Your task to perform on an android device: star an email in the gmail app Image 0: 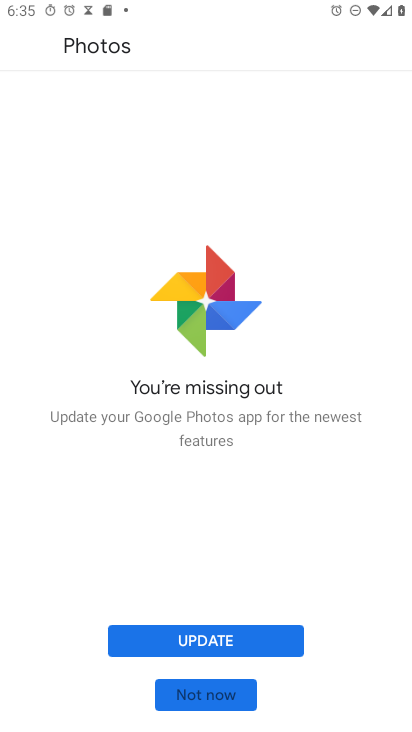
Step 0: press home button
Your task to perform on an android device: star an email in the gmail app Image 1: 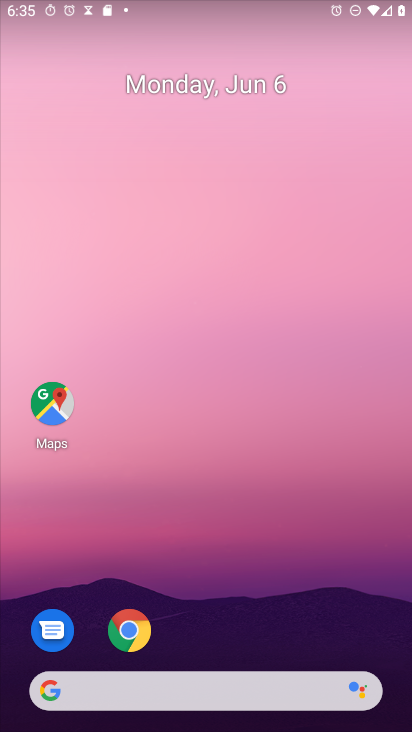
Step 1: drag from (299, 593) to (169, 57)
Your task to perform on an android device: star an email in the gmail app Image 2: 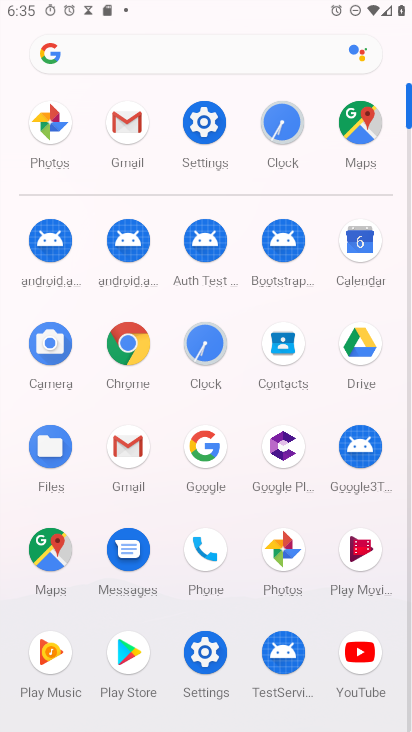
Step 2: click (128, 141)
Your task to perform on an android device: star an email in the gmail app Image 3: 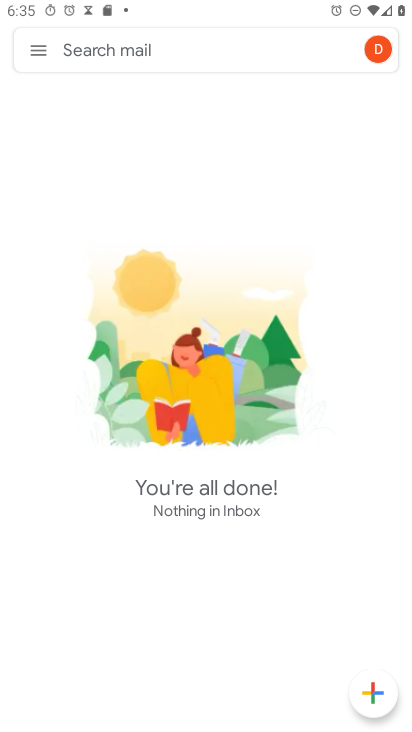
Step 3: click (29, 56)
Your task to perform on an android device: star an email in the gmail app Image 4: 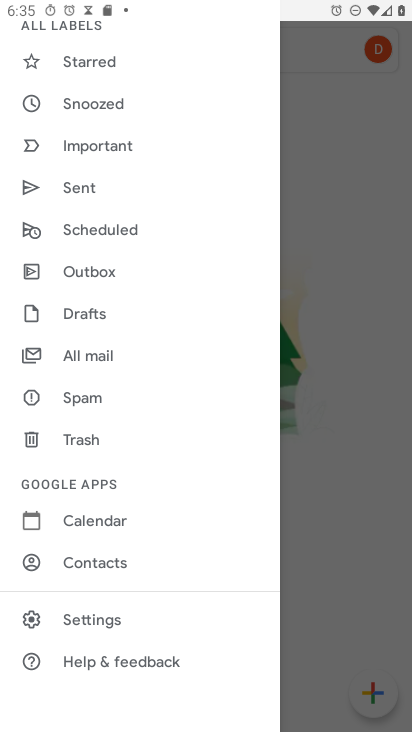
Step 4: drag from (161, 93) to (161, 640)
Your task to perform on an android device: star an email in the gmail app Image 5: 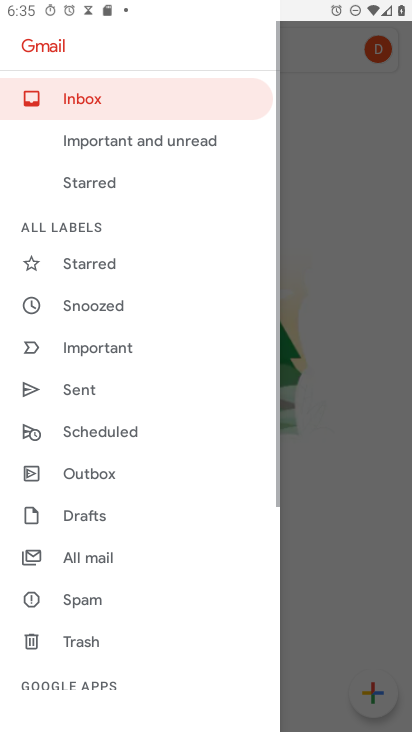
Step 5: click (108, 566)
Your task to perform on an android device: star an email in the gmail app Image 6: 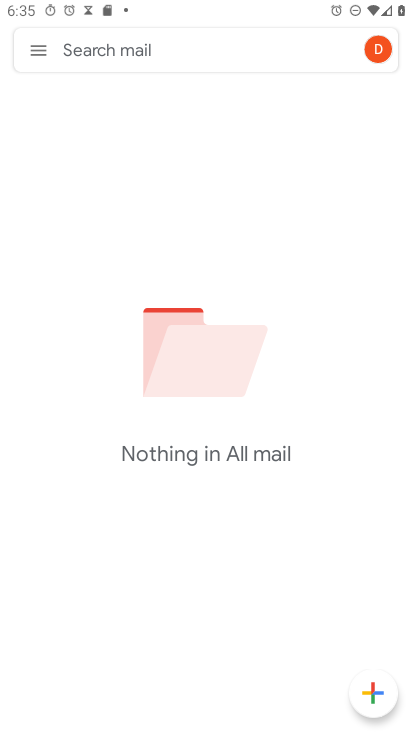
Step 6: task complete